Your task to perform on an android device: Open privacy settings Image 0: 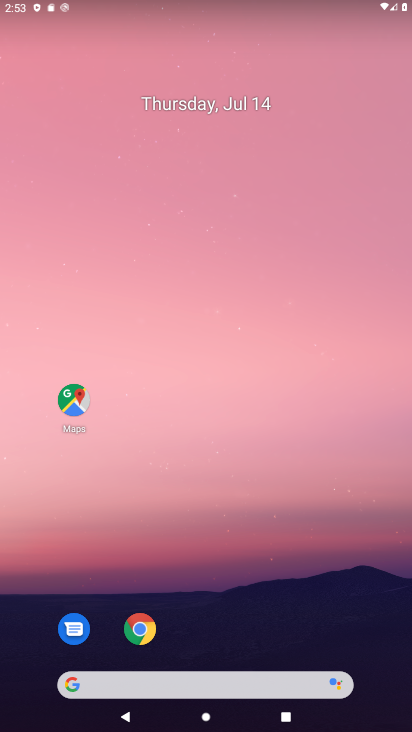
Step 0: drag from (215, 640) to (205, 66)
Your task to perform on an android device: Open privacy settings Image 1: 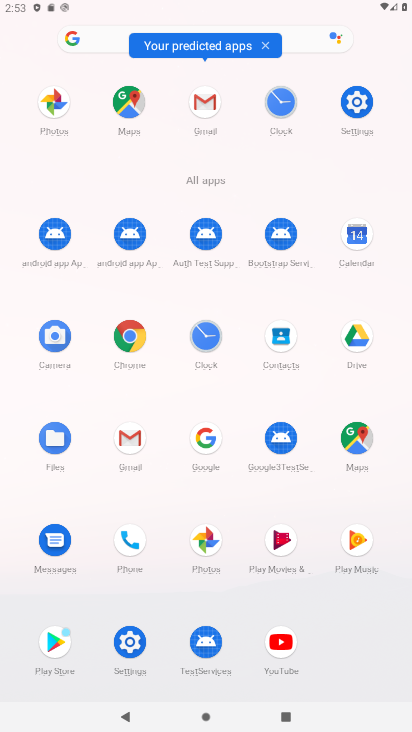
Step 1: click (128, 635)
Your task to perform on an android device: Open privacy settings Image 2: 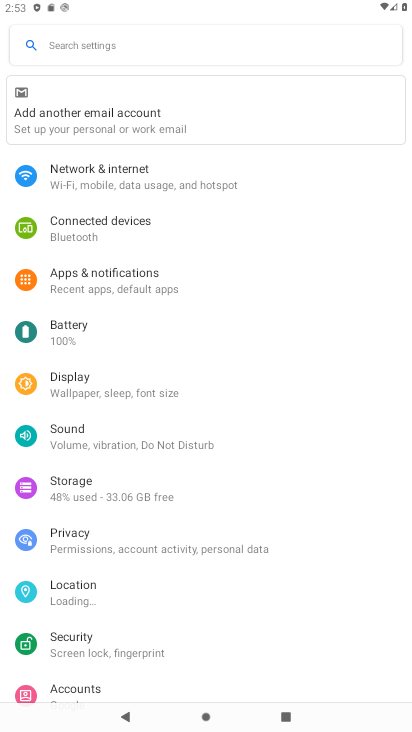
Step 2: click (103, 532)
Your task to perform on an android device: Open privacy settings Image 3: 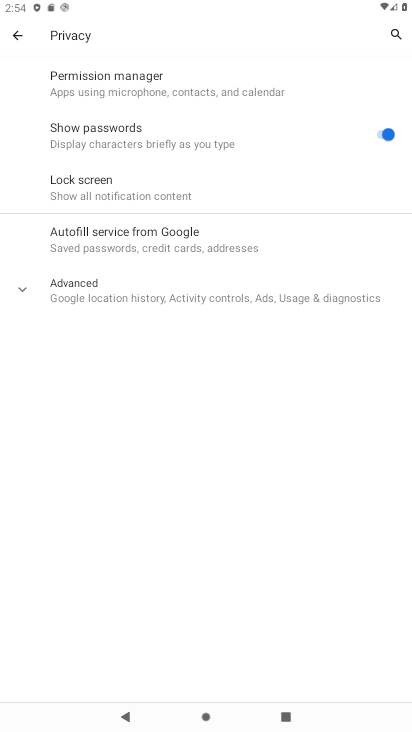
Step 3: click (16, 280)
Your task to perform on an android device: Open privacy settings Image 4: 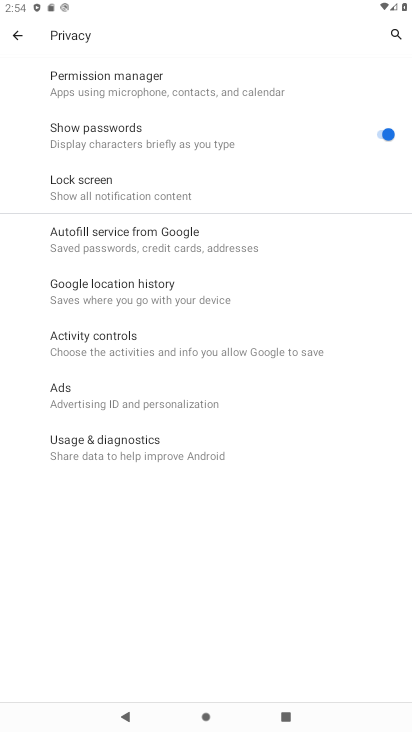
Step 4: task complete